Your task to perform on an android device: check storage Image 0: 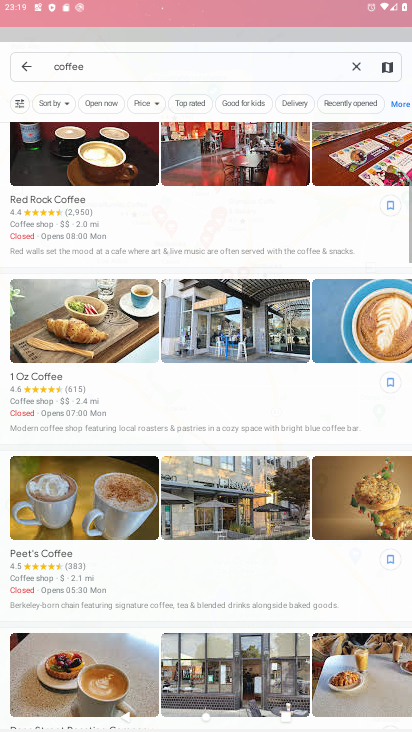
Step 0: click (330, 26)
Your task to perform on an android device: check storage Image 1: 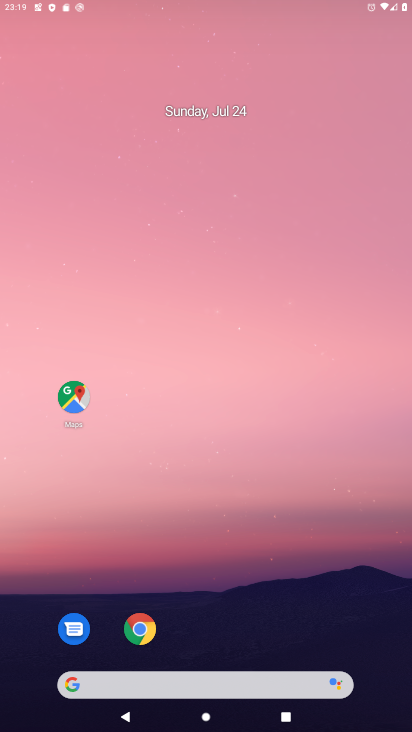
Step 1: drag from (185, 620) to (328, 96)
Your task to perform on an android device: check storage Image 2: 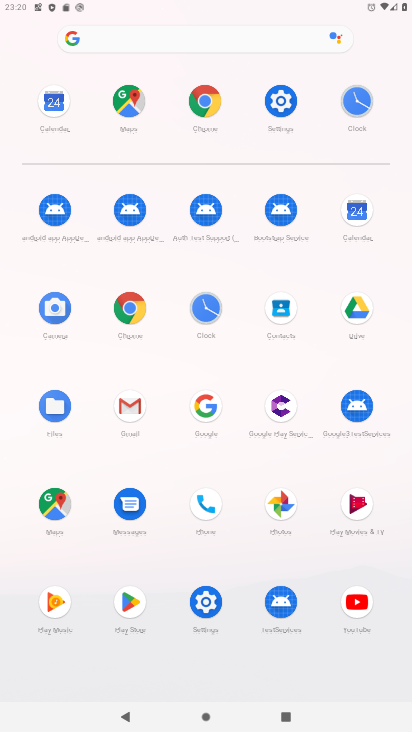
Step 2: click (198, 586)
Your task to perform on an android device: check storage Image 3: 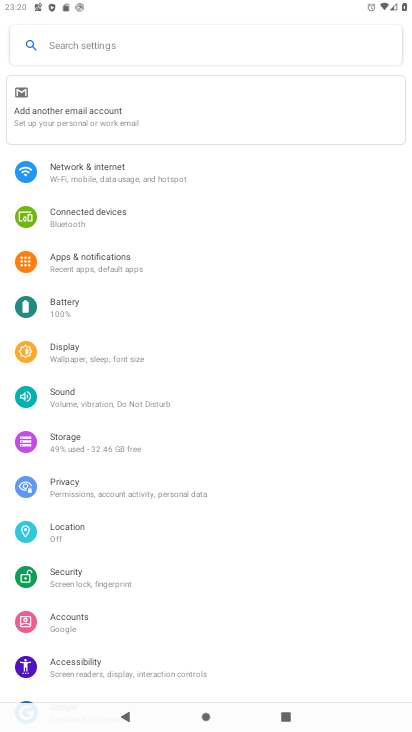
Step 3: click (68, 443)
Your task to perform on an android device: check storage Image 4: 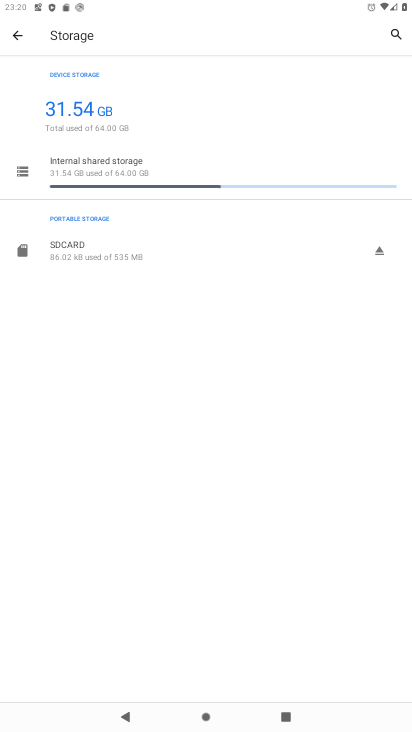
Step 4: task complete